Your task to perform on an android device: Open the web browser Image 0: 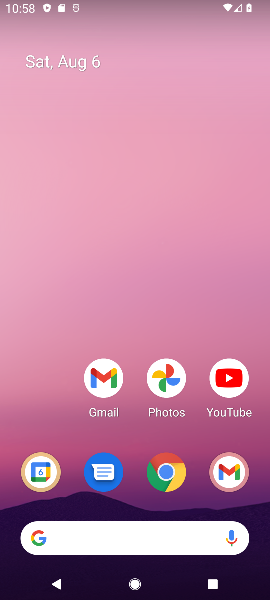
Step 0: drag from (175, 544) to (119, 165)
Your task to perform on an android device: Open the web browser Image 1: 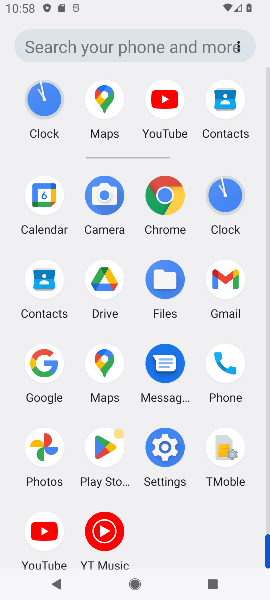
Step 1: click (168, 205)
Your task to perform on an android device: Open the web browser Image 2: 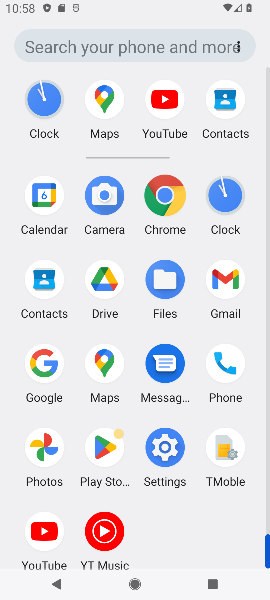
Step 2: click (168, 198)
Your task to perform on an android device: Open the web browser Image 3: 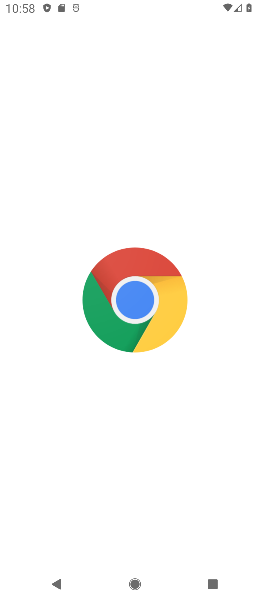
Step 3: click (173, 186)
Your task to perform on an android device: Open the web browser Image 4: 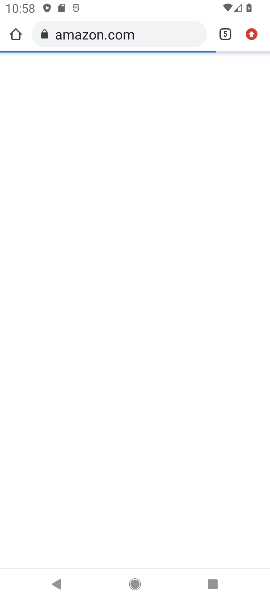
Step 4: click (137, 312)
Your task to perform on an android device: Open the web browser Image 5: 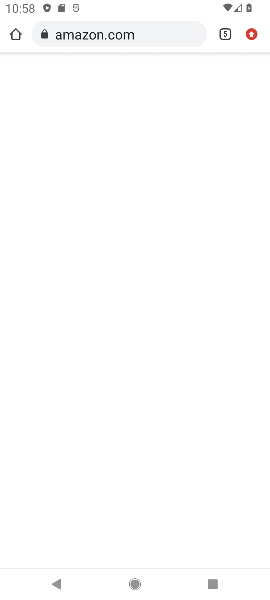
Step 5: click (137, 312)
Your task to perform on an android device: Open the web browser Image 6: 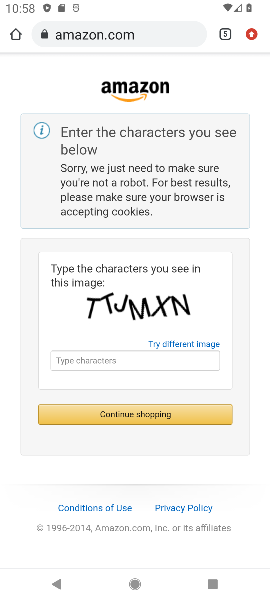
Step 6: task complete